Your task to perform on an android device: turn off notifications in google photos Image 0: 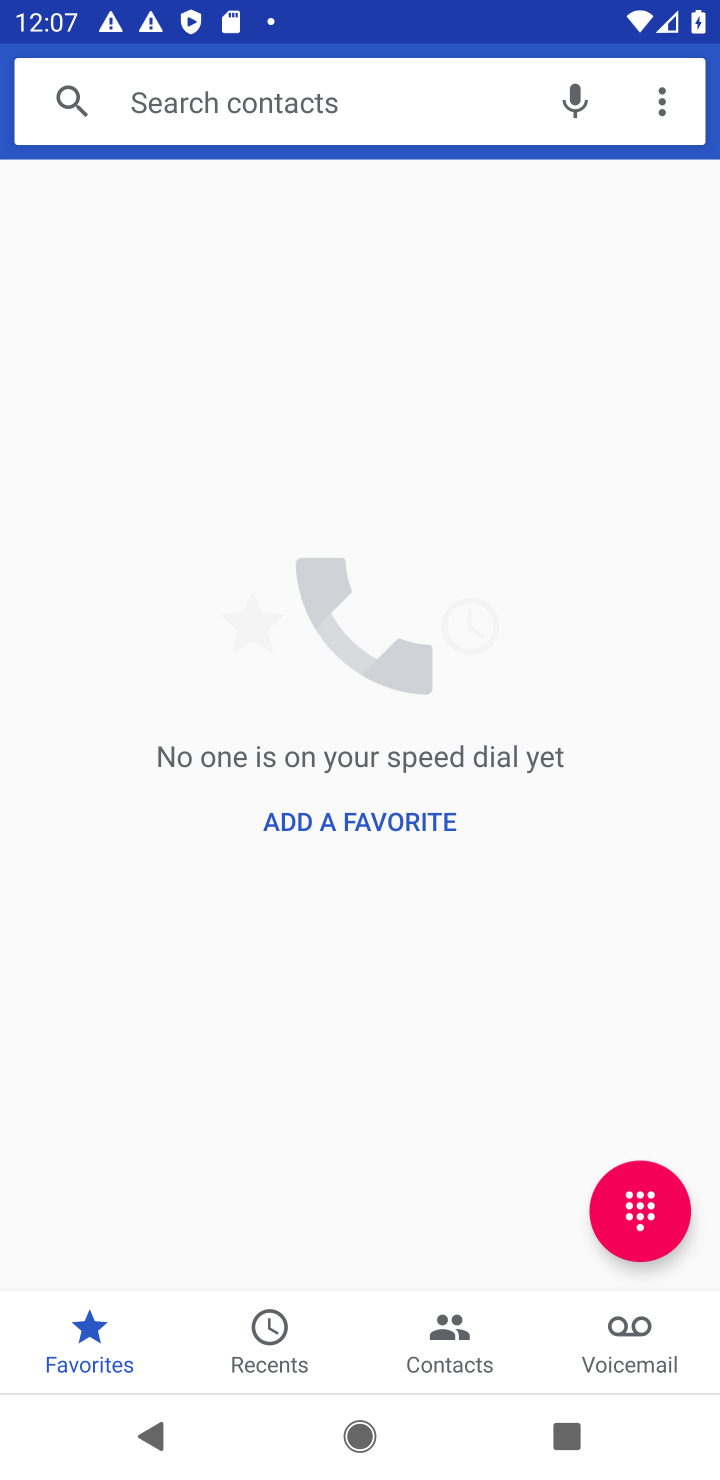
Step 0: press home button
Your task to perform on an android device: turn off notifications in google photos Image 1: 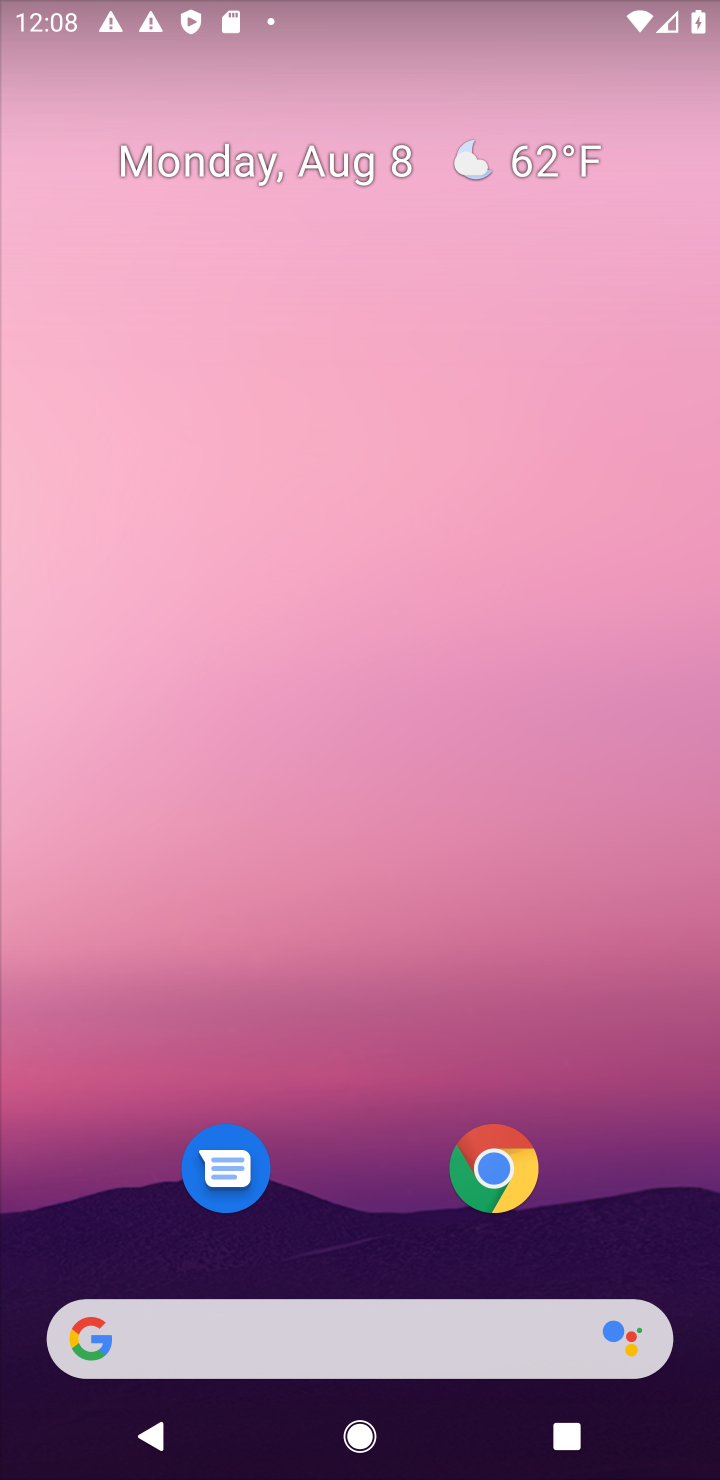
Step 1: drag from (352, 1248) to (448, 155)
Your task to perform on an android device: turn off notifications in google photos Image 2: 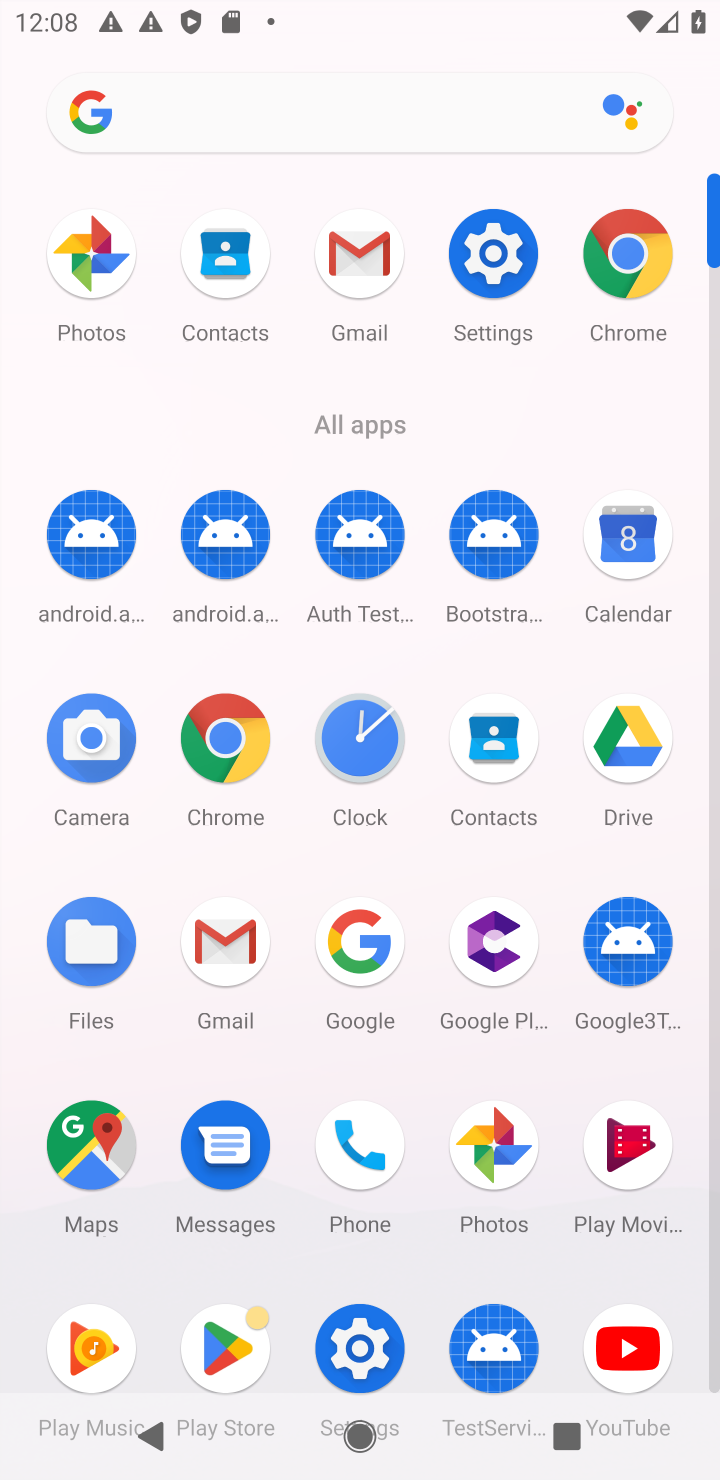
Step 2: click (502, 1174)
Your task to perform on an android device: turn off notifications in google photos Image 3: 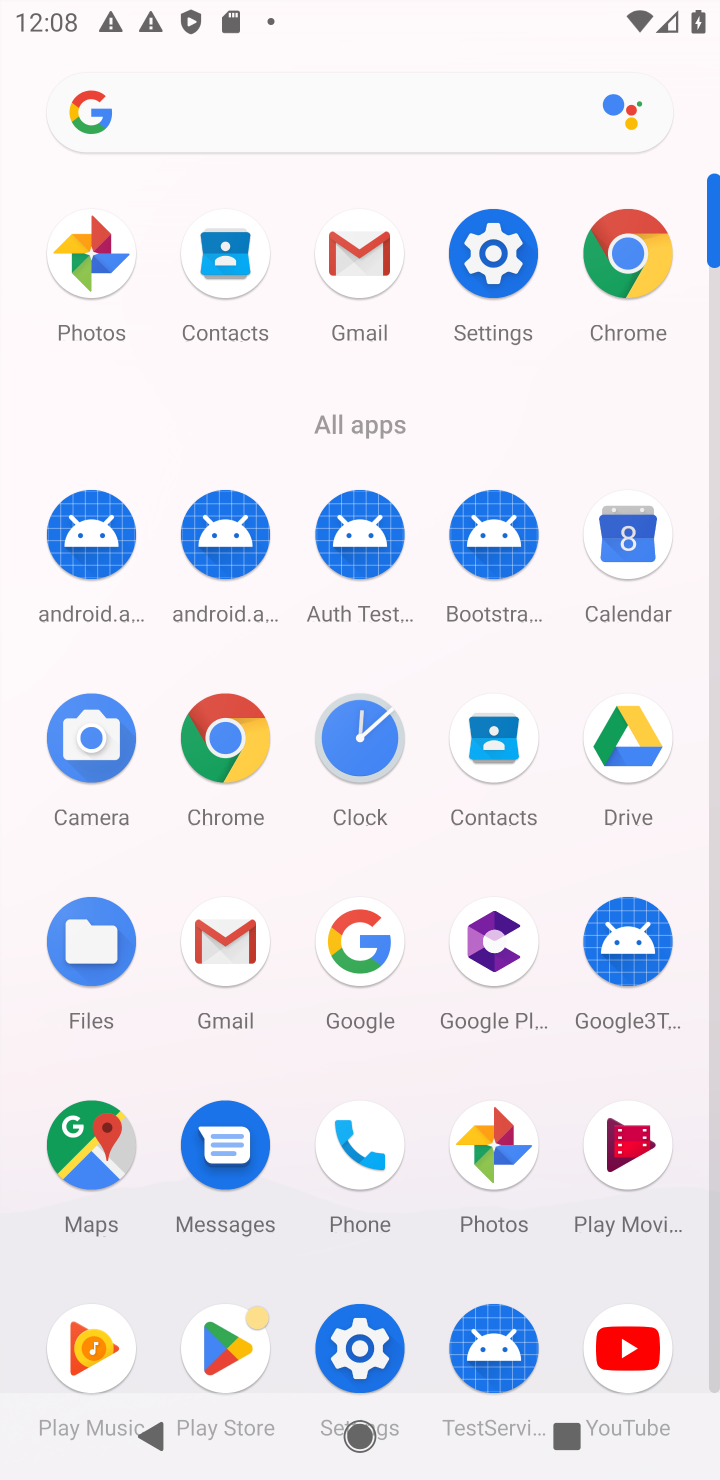
Step 3: task complete